Your task to perform on an android device: Play the last video I watched on Youtube Image 0: 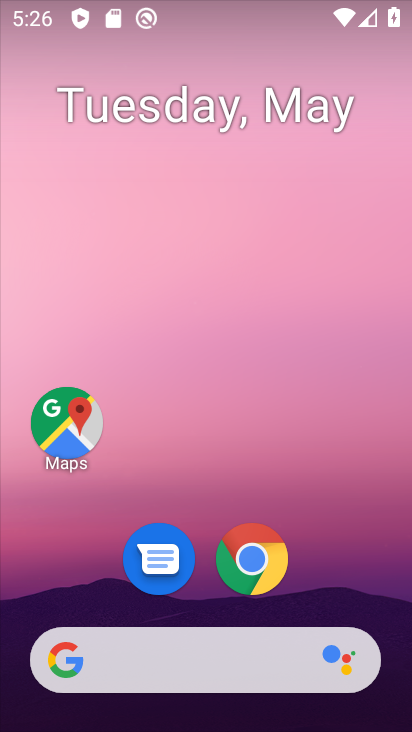
Step 0: drag from (195, 600) to (293, 219)
Your task to perform on an android device: Play the last video I watched on Youtube Image 1: 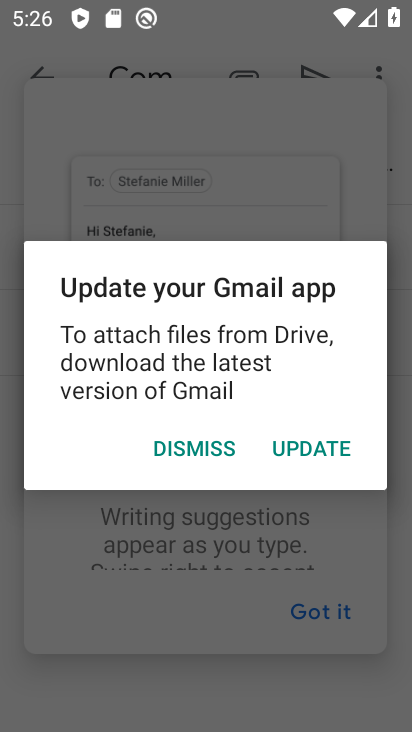
Step 1: press home button
Your task to perform on an android device: Play the last video I watched on Youtube Image 2: 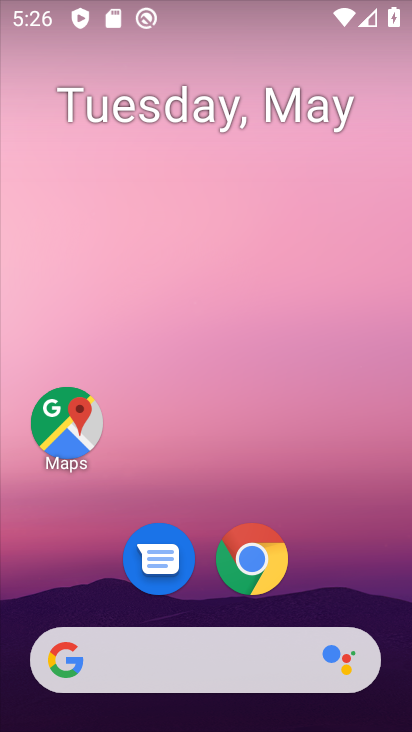
Step 2: drag from (201, 601) to (240, 229)
Your task to perform on an android device: Play the last video I watched on Youtube Image 3: 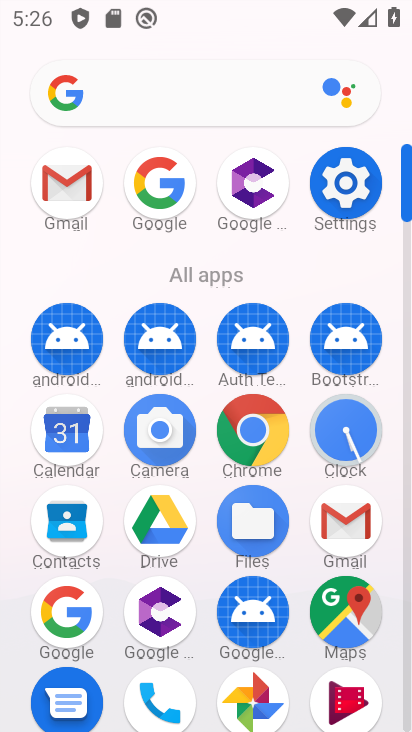
Step 3: drag from (189, 576) to (197, 266)
Your task to perform on an android device: Play the last video I watched on Youtube Image 4: 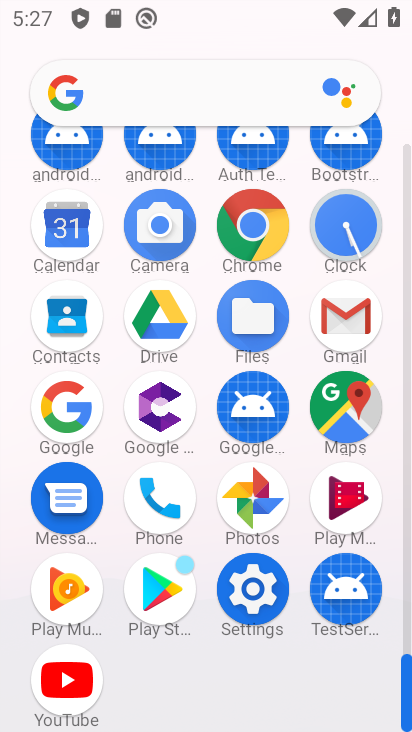
Step 4: click (64, 682)
Your task to perform on an android device: Play the last video I watched on Youtube Image 5: 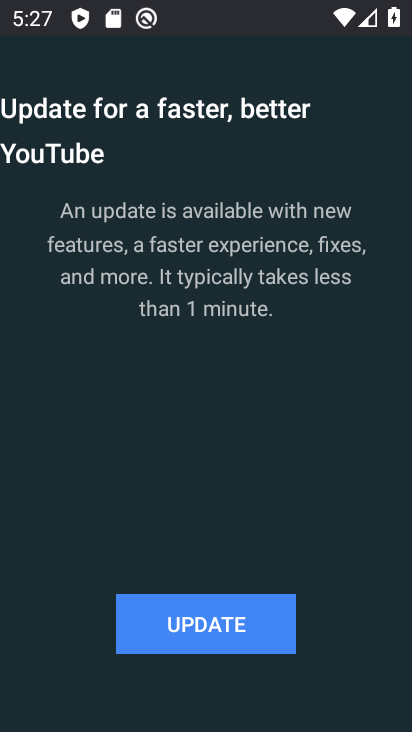
Step 5: click (160, 633)
Your task to perform on an android device: Play the last video I watched on Youtube Image 6: 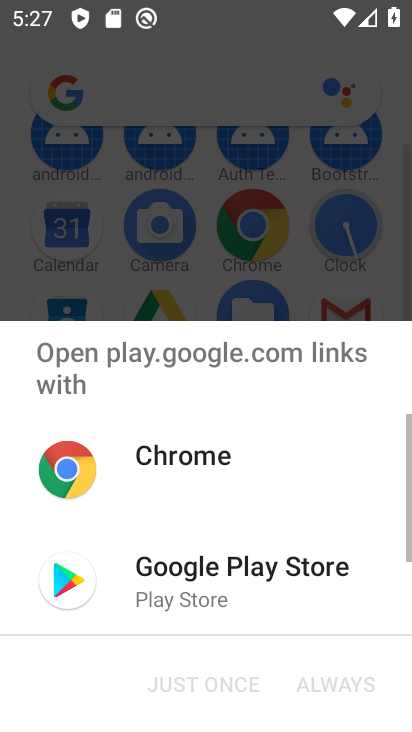
Step 6: click (225, 572)
Your task to perform on an android device: Play the last video I watched on Youtube Image 7: 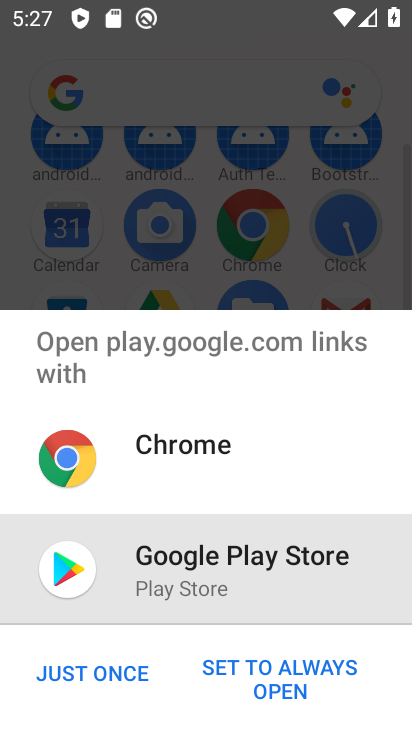
Step 7: click (266, 675)
Your task to perform on an android device: Play the last video I watched on Youtube Image 8: 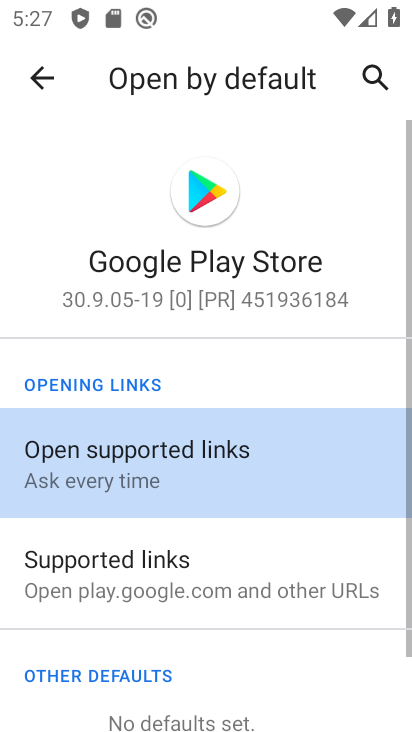
Step 8: click (105, 448)
Your task to perform on an android device: Play the last video I watched on Youtube Image 9: 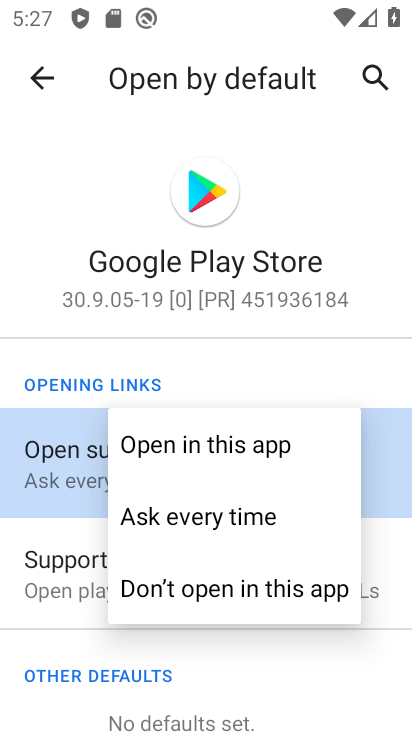
Step 9: click (194, 449)
Your task to perform on an android device: Play the last video I watched on Youtube Image 10: 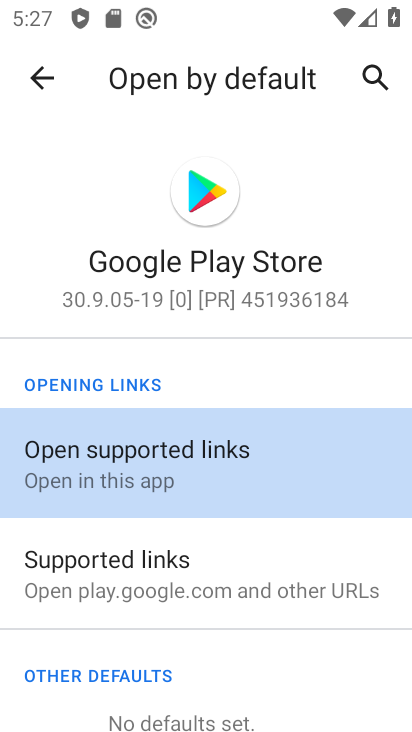
Step 10: click (49, 81)
Your task to perform on an android device: Play the last video I watched on Youtube Image 11: 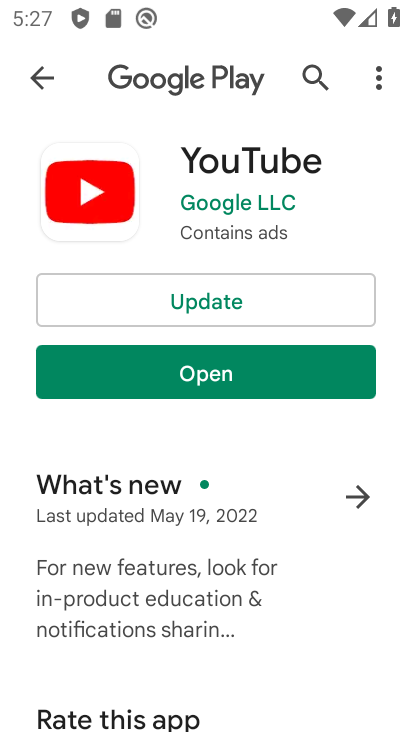
Step 11: click (159, 307)
Your task to perform on an android device: Play the last video I watched on Youtube Image 12: 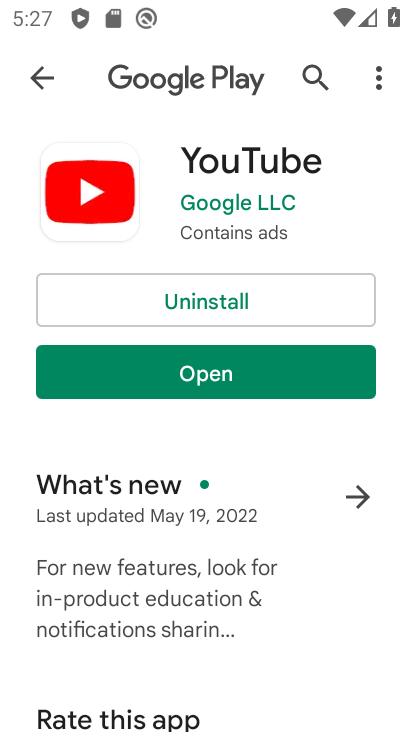
Step 12: click (196, 358)
Your task to perform on an android device: Play the last video I watched on Youtube Image 13: 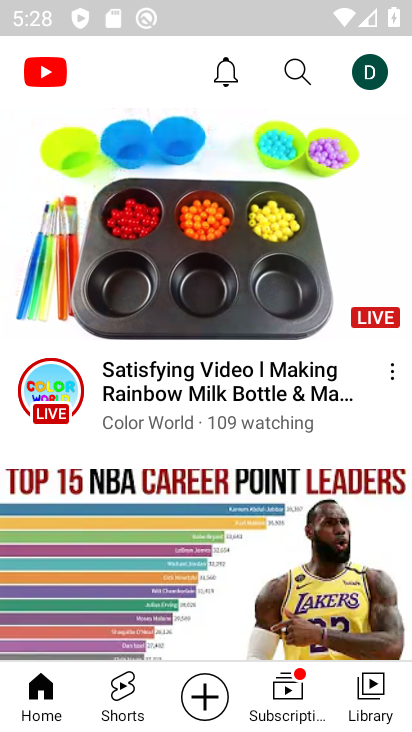
Step 13: task complete